Your task to perform on an android device: all mails in gmail Image 0: 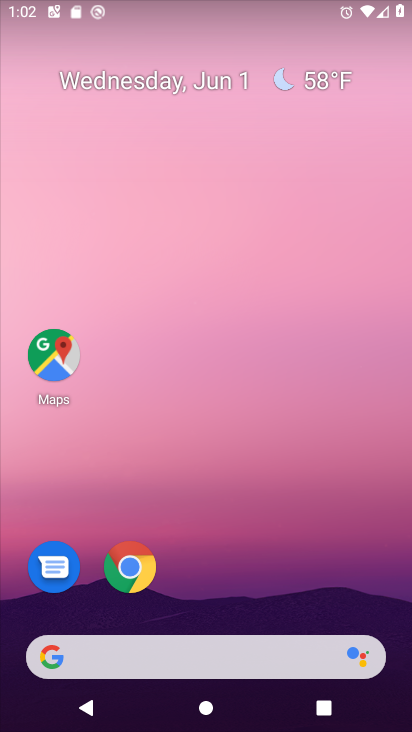
Step 0: drag from (226, 537) to (229, 69)
Your task to perform on an android device: all mails in gmail Image 1: 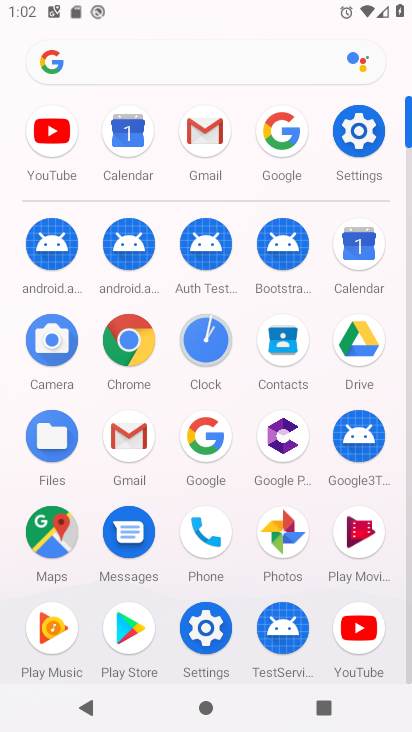
Step 1: click (201, 135)
Your task to perform on an android device: all mails in gmail Image 2: 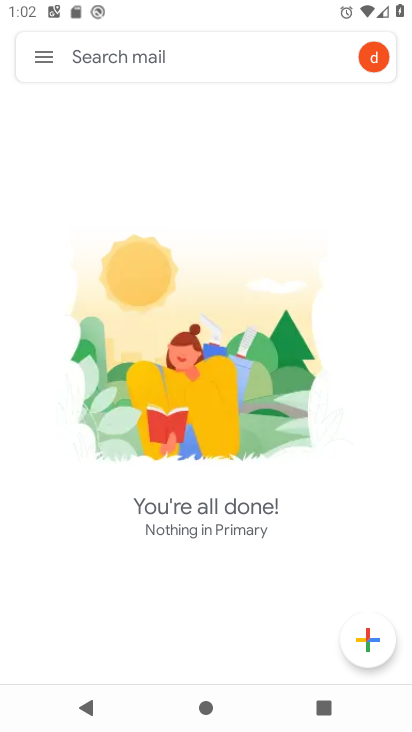
Step 2: click (40, 61)
Your task to perform on an android device: all mails in gmail Image 3: 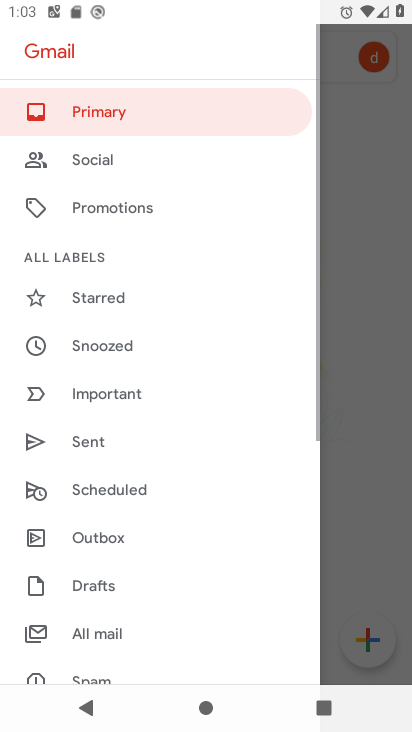
Step 3: click (115, 638)
Your task to perform on an android device: all mails in gmail Image 4: 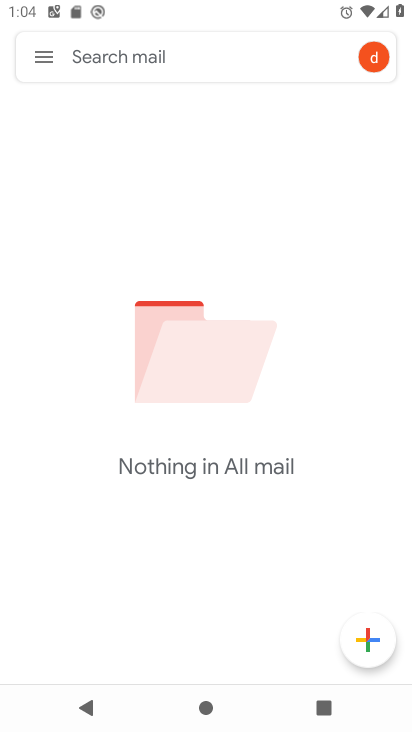
Step 4: task complete